Your task to perform on an android device: Go to accessibility settings Image 0: 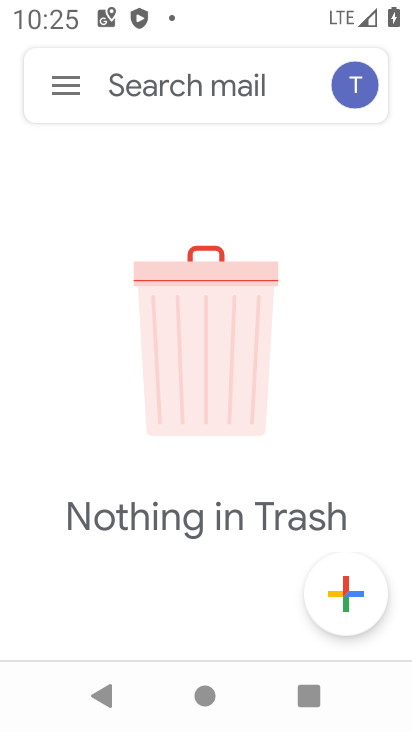
Step 0: press home button
Your task to perform on an android device: Go to accessibility settings Image 1: 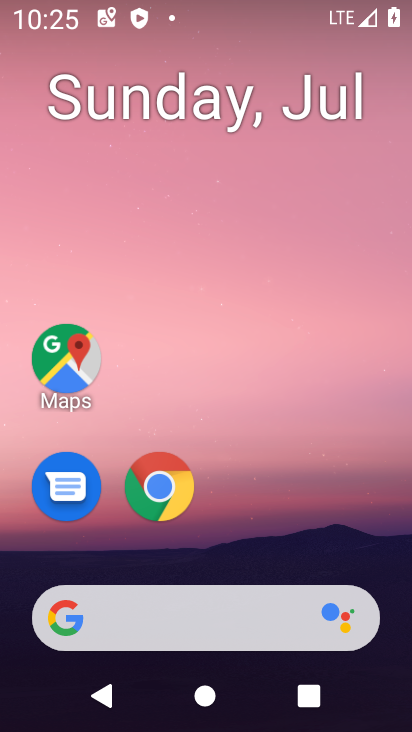
Step 1: drag from (364, 536) to (379, 103)
Your task to perform on an android device: Go to accessibility settings Image 2: 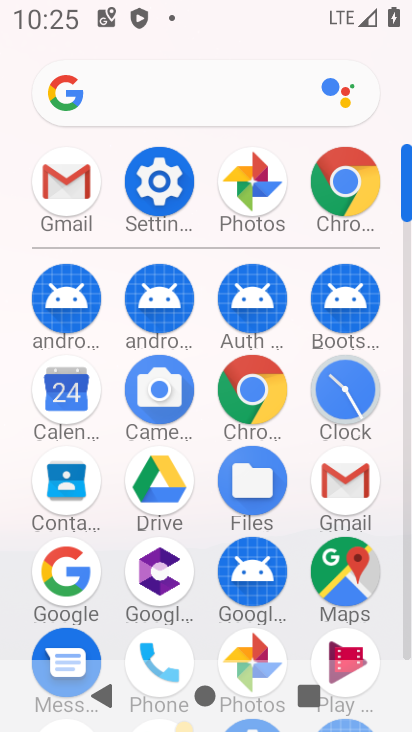
Step 2: click (164, 183)
Your task to perform on an android device: Go to accessibility settings Image 3: 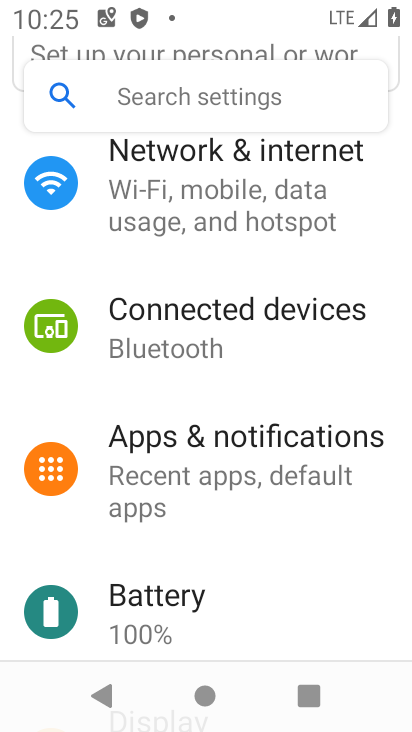
Step 3: drag from (372, 214) to (364, 340)
Your task to perform on an android device: Go to accessibility settings Image 4: 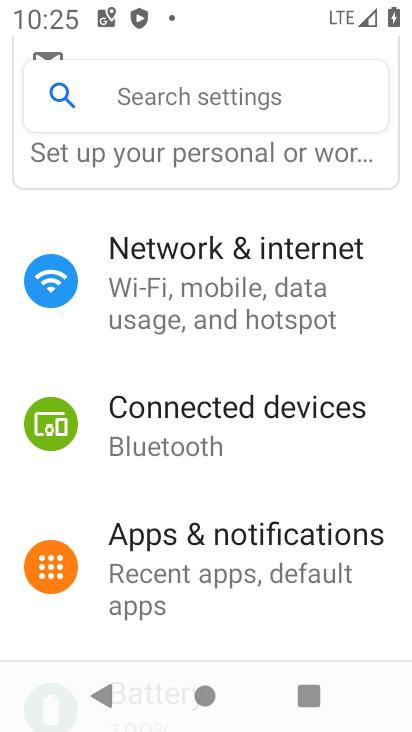
Step 4: drag from (371, 200) to (373, 406)
Your task to perform on an android device: Go to accessibility settings Image 5: 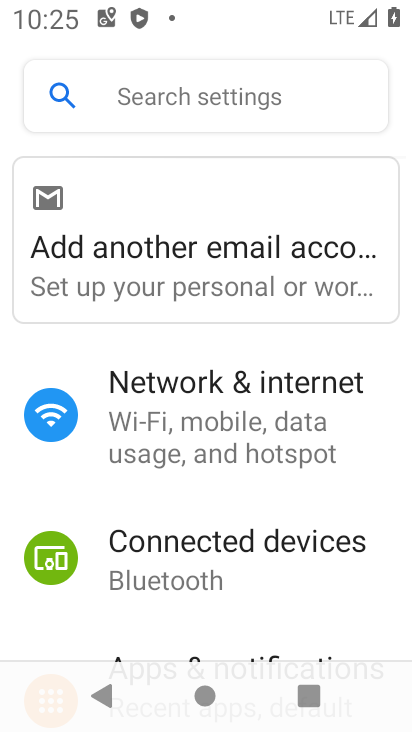
Step 5: drag from (376, 478) to (384, 348)
Your task to perform on an android device: Go to accessibility settings Image 6: 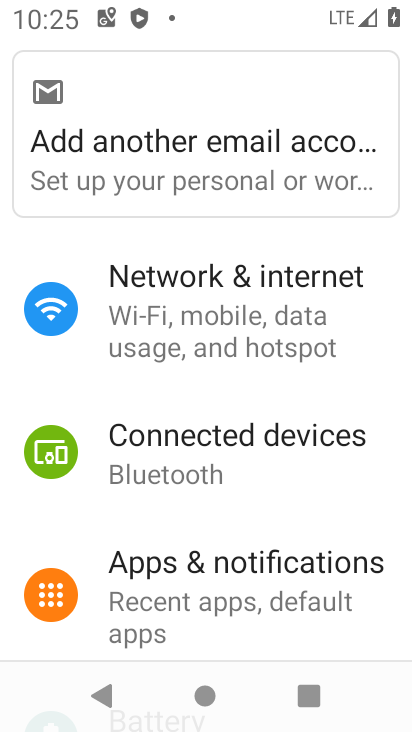
Step 6: drag from (353, 502) to (358, 339)
Your task to perform on an android device: Go to accessibility settings Image 7: 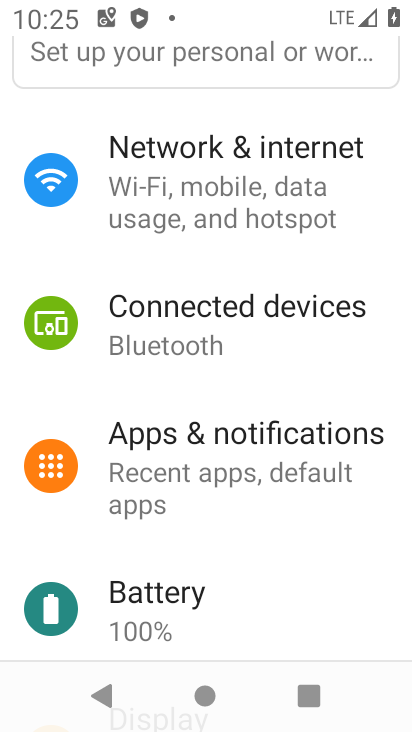
Step 7: drag from (334, 521) to (346, 306)
Your task to perform on an android device: Go to accessibility settings Image 8: 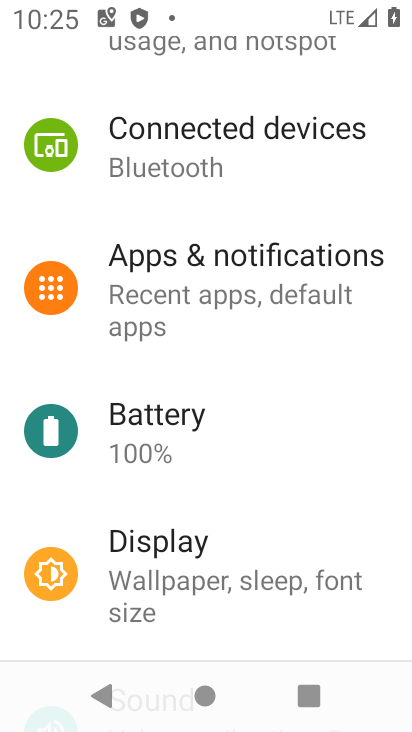
Step 8: drag from (331, 495) to (354, 304)
Your task to perform on an android device: Go to accessibility settings Image 9: 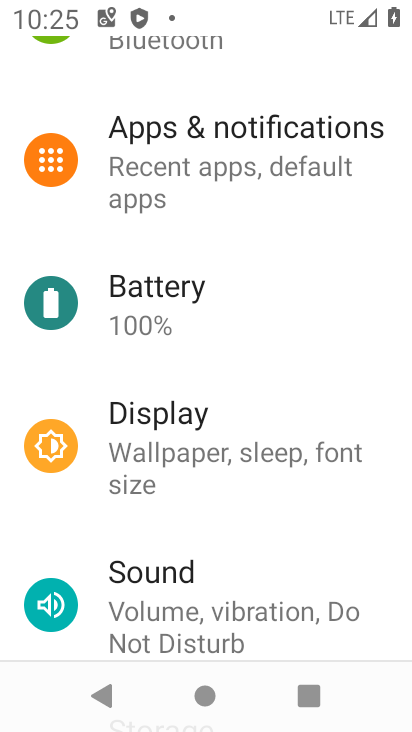
Step 9: drag from (345, 461) to (340, 299)
Your task to perform on an android device: Go to accessibility settings Image 10: 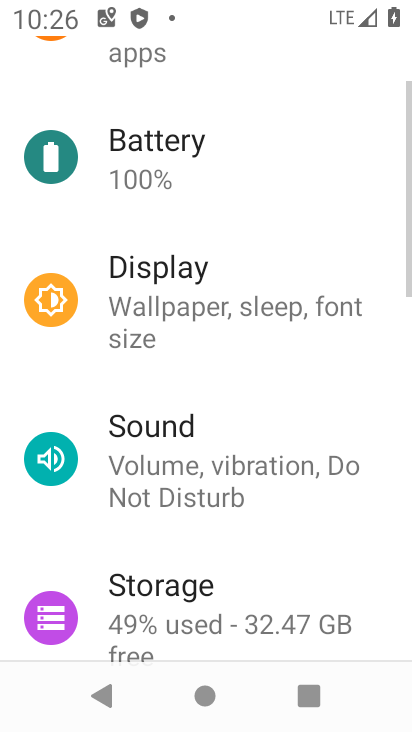
Step 10: drag from (338, 532) to (348, 342)
Your task to perform on an android device: Go to accessibility settings Image 11: 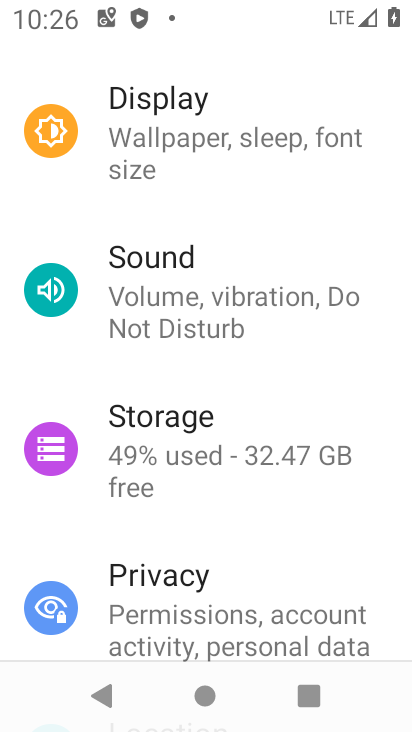
Step 11: drag from (355, 524) to (346, 368)
Your task to perform on an android device: Go to accessibility settings Image 12: 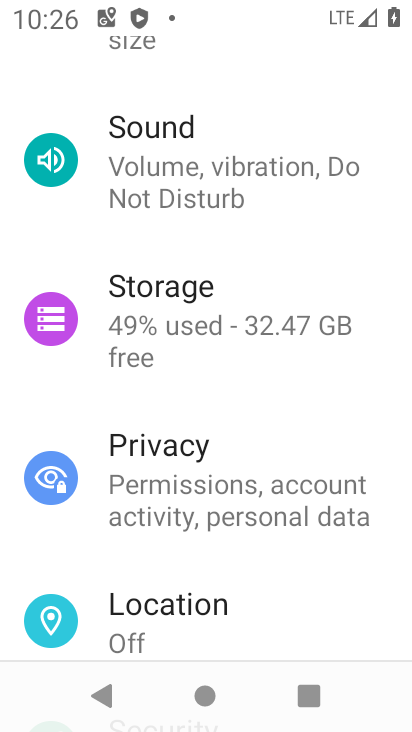
Step 12: drag from (330, 565) to (336, 408)
Your task to perform on an android device: Go to accessibility settings Image 13: 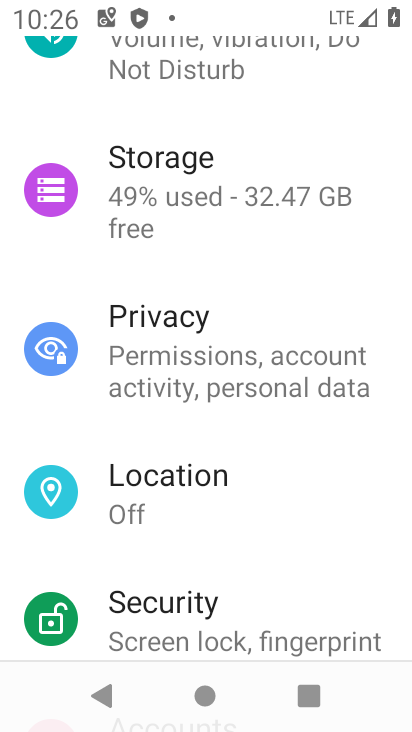
Step 13: drag from (332, 572) to (321, 418)
Your task to perform on an android device: Go to accessibility settings Image 14: 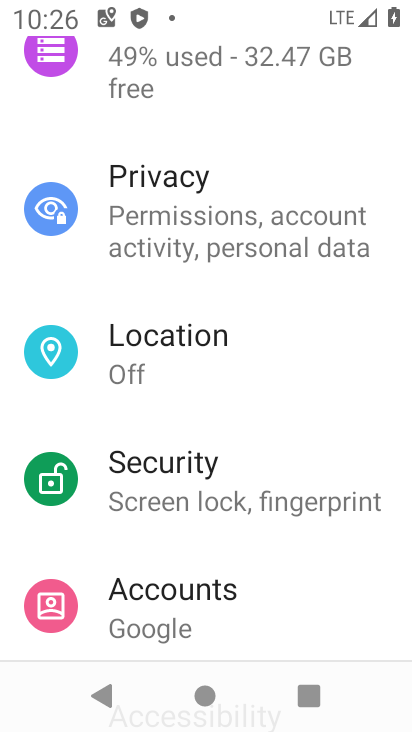
Step 14: drag from (315, 588) to (319, 372)
Your task to perform on an android device: Go to accessibility settings Image 15: 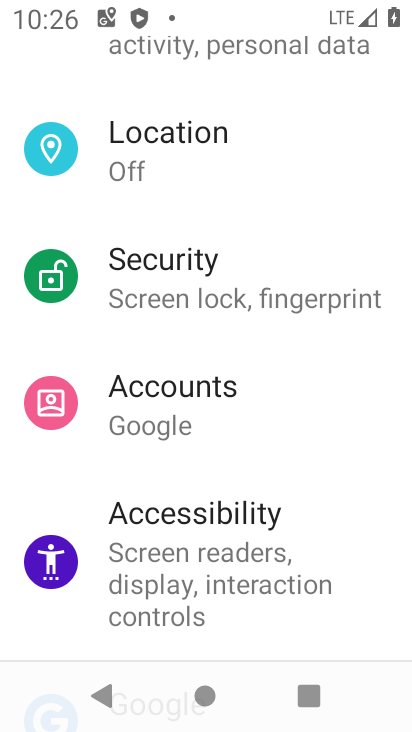
Step 15: click (310, 577)
Your task to perform on an android device: Go to accessibility settings Image 16: 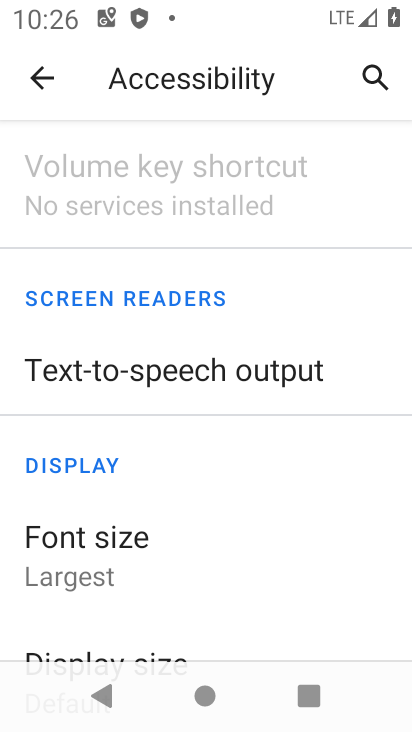
Step 16: task complete